Your task to perform on an android device: change timer sound Image 0: 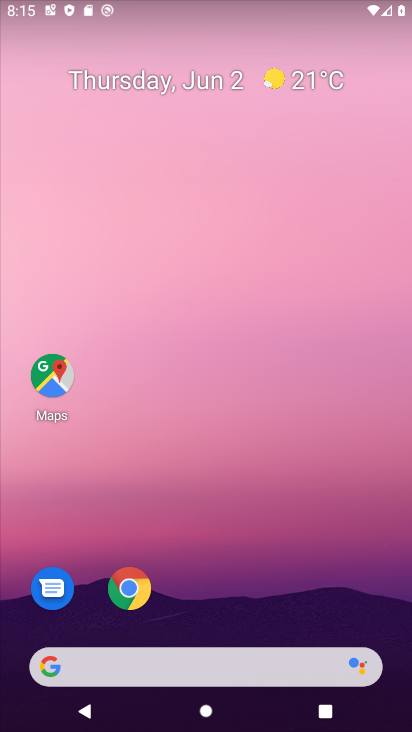
Step 0: drag from (203, 667) to (199, 204)
Your task to perform on an android device: change timer sound Image 1: 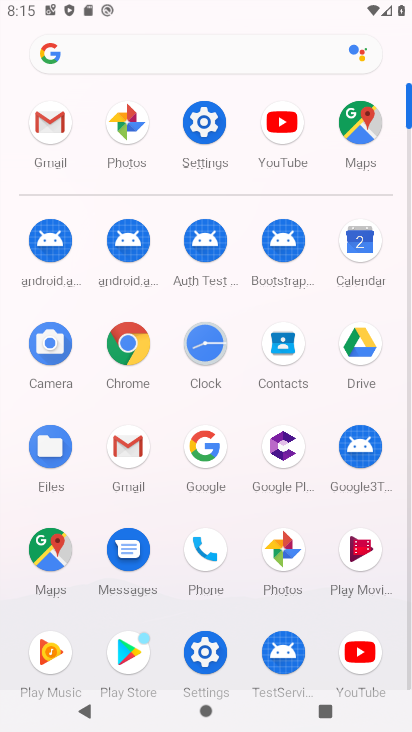
Step 1: click (199, 339)
Your task to perform on an android device: change timer sound Image 2: 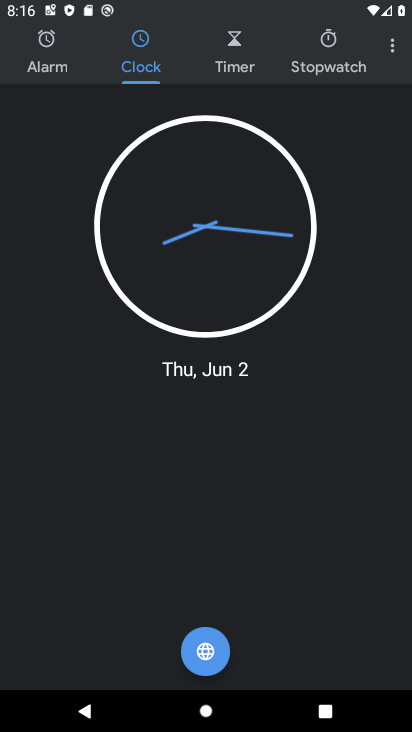
Step 2: click (386, 42)
Your task to perform on an android device: change timer sound Image 3: 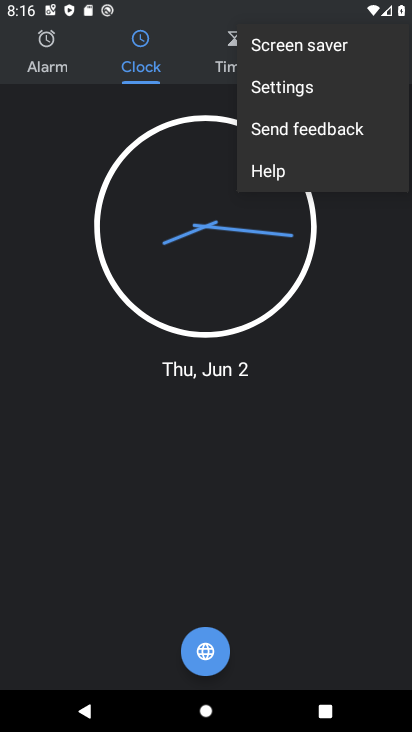
Step 3: click (311, 89)
Your task to perform on an android device: change timer sound Image 4: 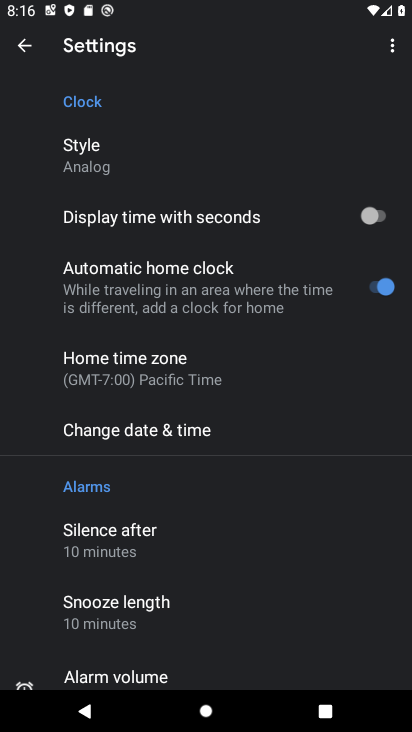
Step 4: drag from (176, 586) to (190, 273)
Your task to perform on an android device: change timer sound Image 5: 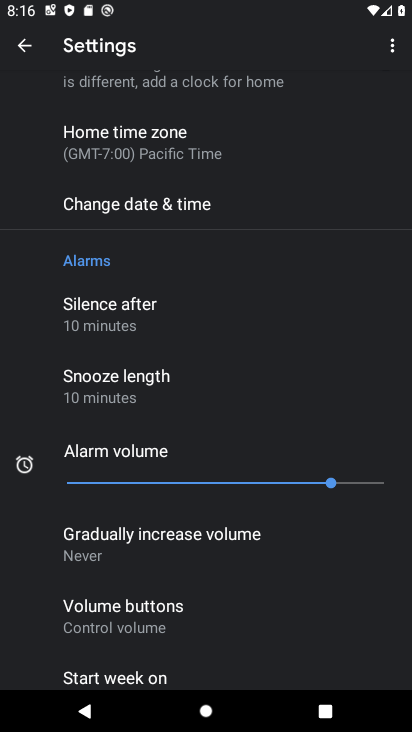
Step 5: drag from (146, 632) to (158, 201)
Your task to perform on an android device: change timer sound Image 6: 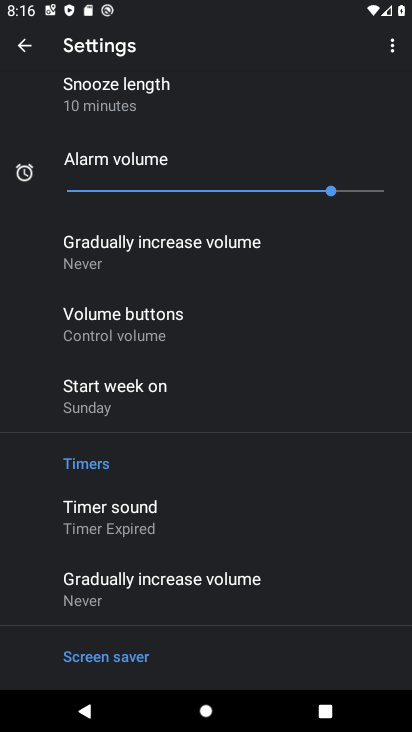
Step 6: click (167, 529)
Your task to perform on an android device: change timer sound Image 7: 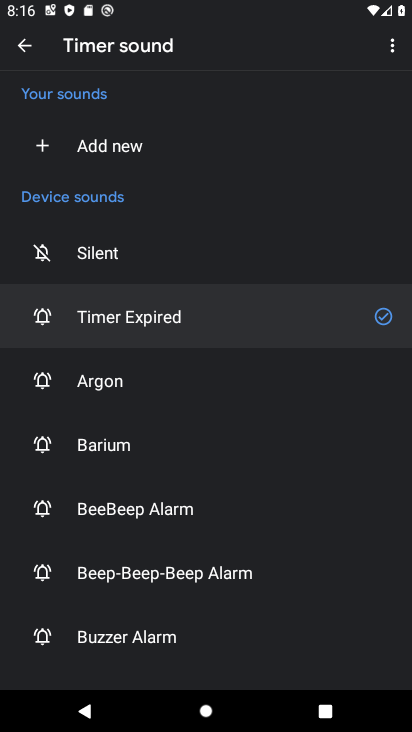
Step 7: click (148, 628)
Your task to perform on an android device: change timer sound Image 8: 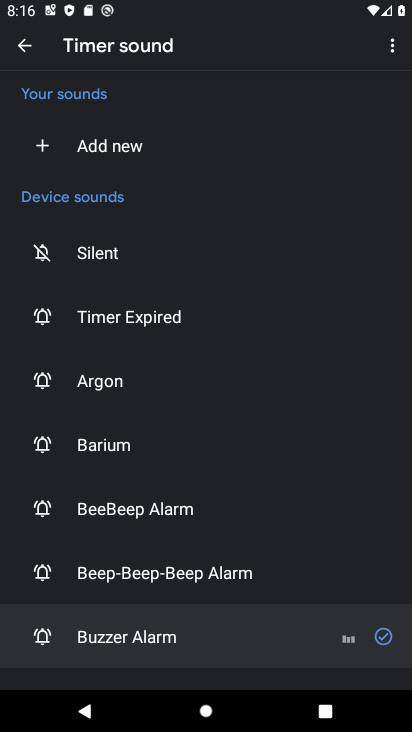
Step 8: task complete